Your task to perform on an android device: Open calendar and show me the third week of next month Image 0: 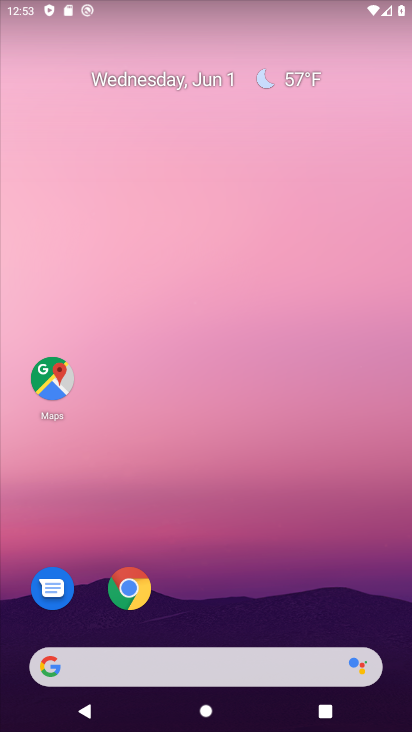
Step 0: click (200, 35)
Your task to perform on an android device: Open calendar and show me the third week of next month Image 1: 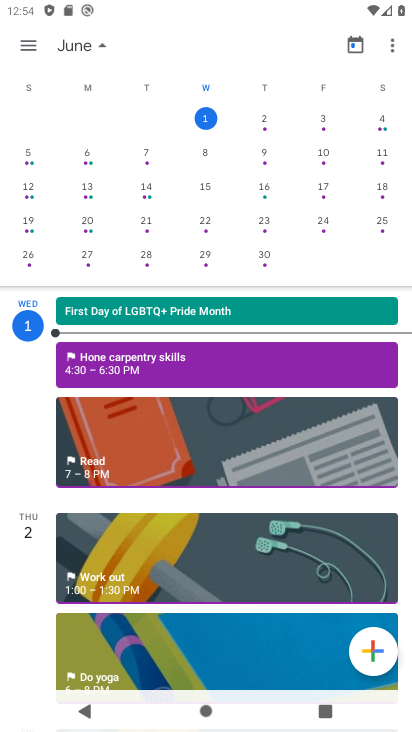
Step 1: press home button
Your task to perform on an android device: Open calendar and show me the third week of next month Image 2: 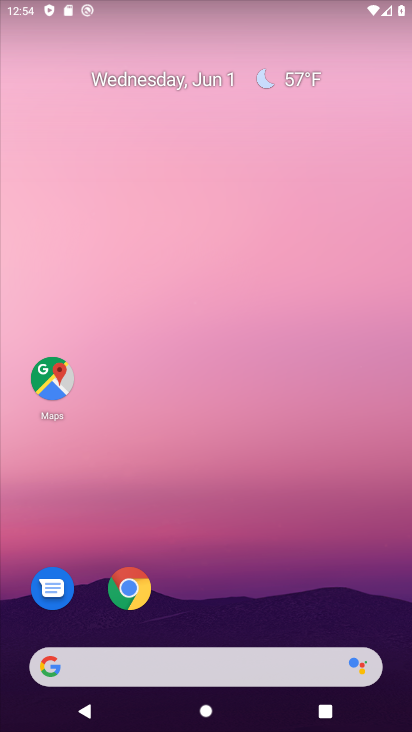
Step 2: drag from (277, 542) to (158, 60)
Your task to perform on an android device: Open calendar and show me the third week of next month Image 3: 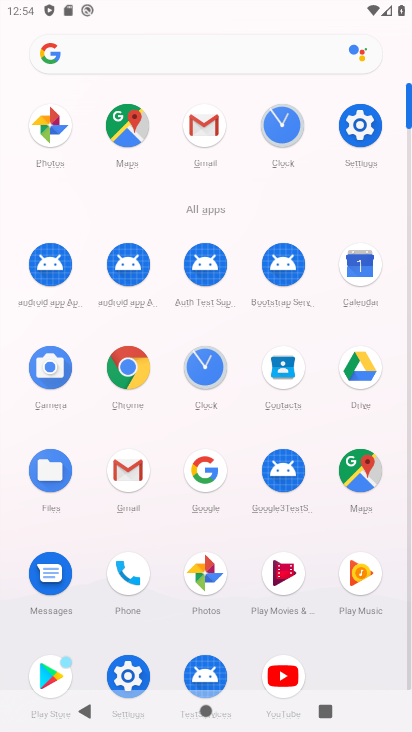
Step 3: click (356, 260)
Your task to perform on an android device: Open calendar and show me the third week of next month Image 4: 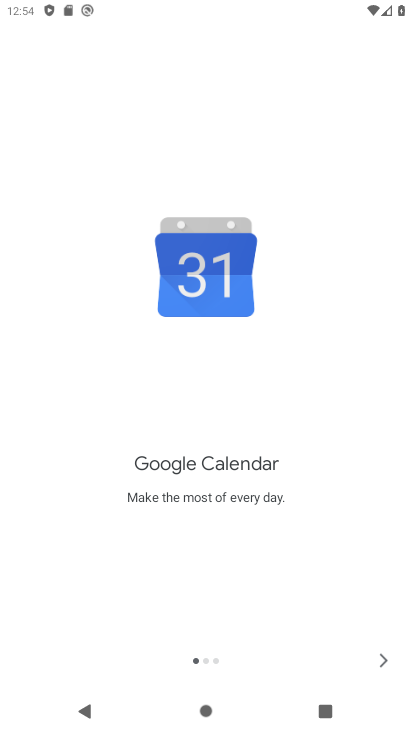
Step 4: click (380, 655)
Your task to perform on an android device: Open calendar and show me the third week of next month Image 5: 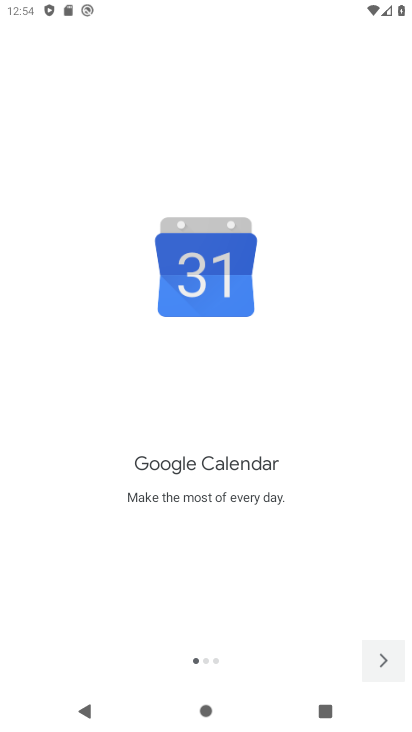
Step 5: click (380, 655)
Your task to perform on an android device: Open calendar and show me the third week of next month Image 6: 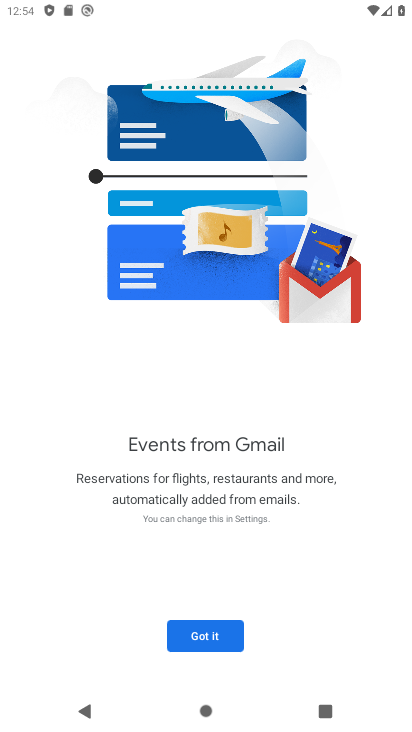
Step 6: click (210, 619)
Your task to perform on an android device: Open calendar and show me the third week of next month Image 7: 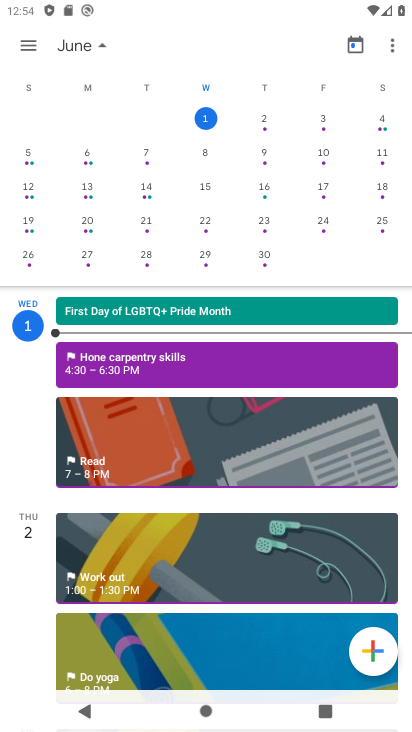
Step 7: drag from (342, 186) to (0, 206)
Your task to perform on an android device: Open calendar and show me the third week of next month Image 8: 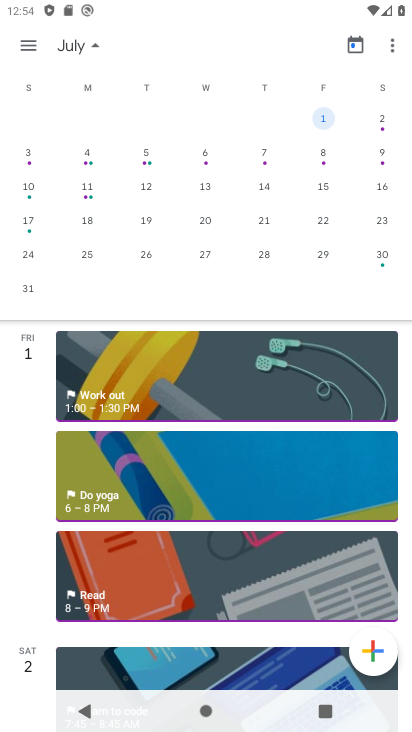
Step 8: click (29, 193)
Your task to perform on an android device: Open calendar and show me the third week of next month Image 9: 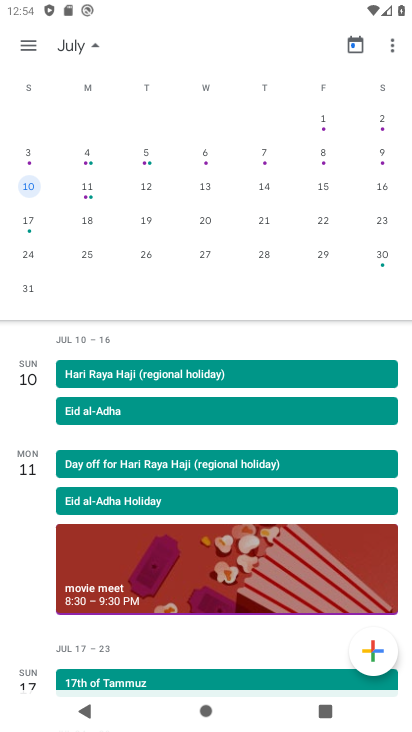
Step 9: task complete